Your task to perform on an android device: Open accessibility settings Image 0: 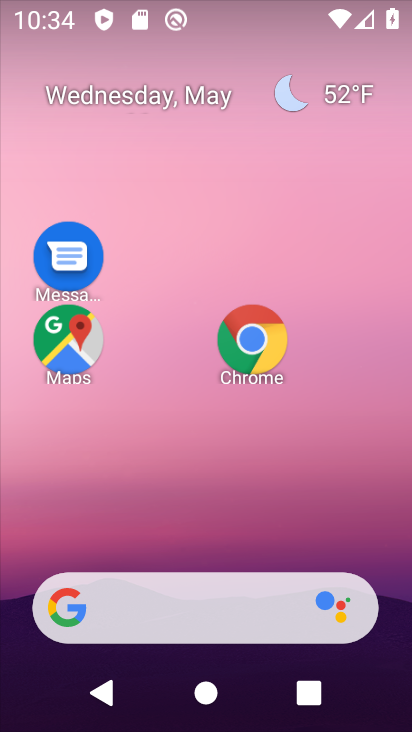
Step 0: drag from (191, 495) to (193, 14)
Your task to perform on an android device: Open accessibility settings Image 1: 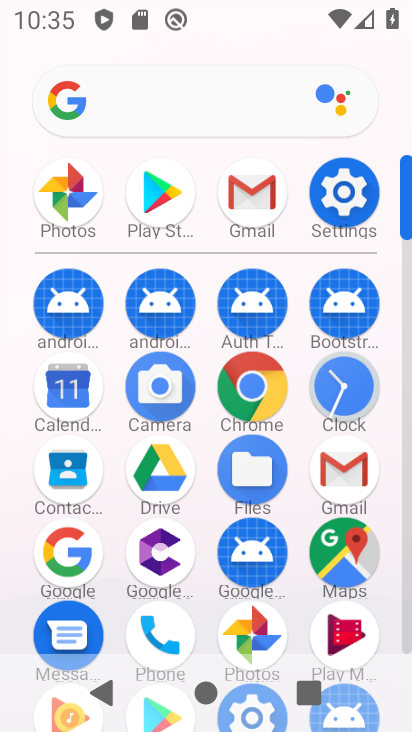
Step 1: click (345, 184)
Your task to perform on an android device: Open accessibility settings Image 2: 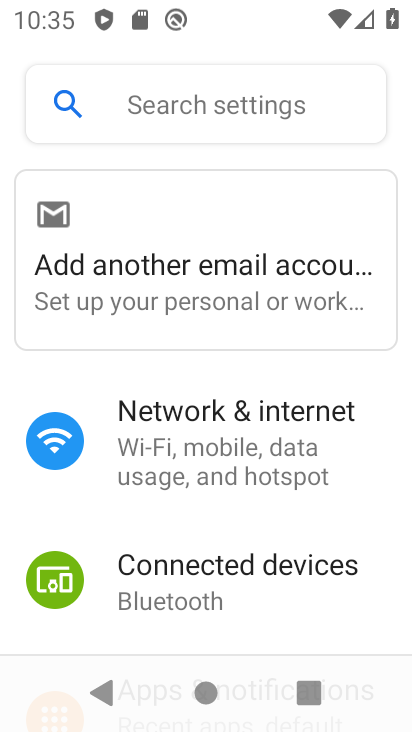
Step 2: drag from (281, 590) to (293, 7)
Your task to perform on an android device: Open accessibility settings Image 3: 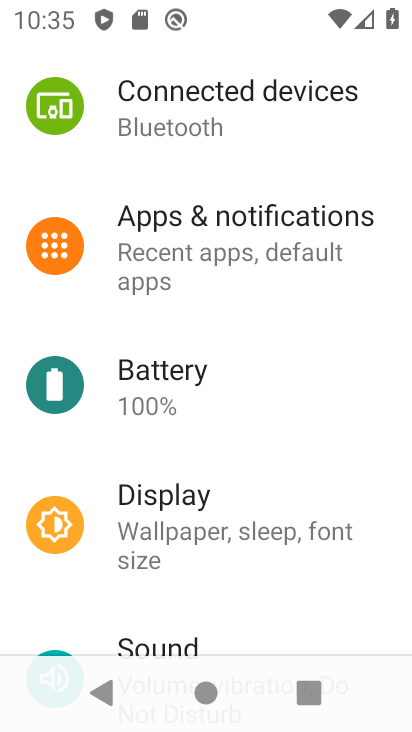
Step 3: drag from (273, 506) to (265, 23)
Your task to perform on an android device: Open accessibility settings Image 4: 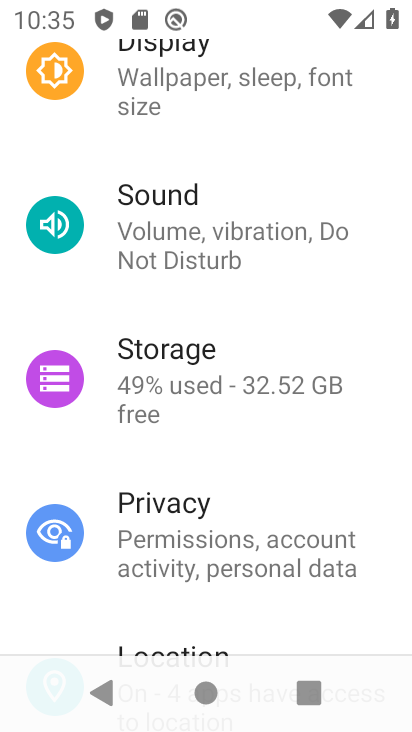
Step 4: drag from (255, 532) to (226, 27)
Your task to perform on an android device: Open accessibility settings Image 5: 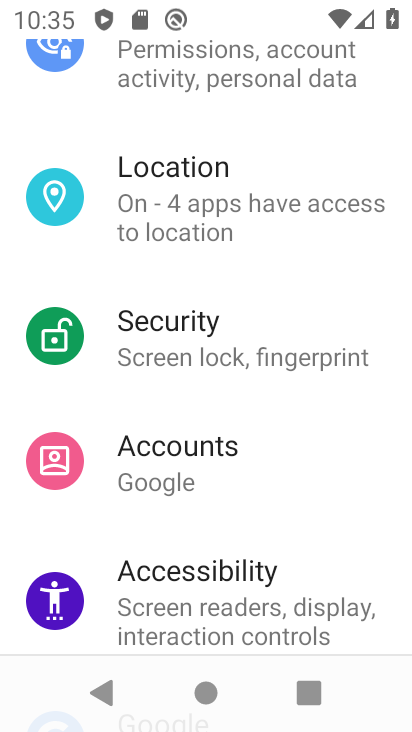
Step 5: drag from (241, 567) to (264, 300)
Your task to perform on an android device: Open accessibility settings Image 6: 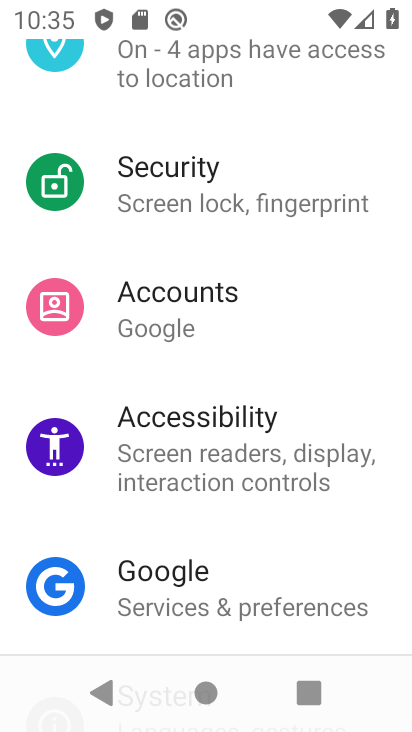
Step 6: click (233, 419)
Your task to perform on an android device: Open accessibility settings Image 7: 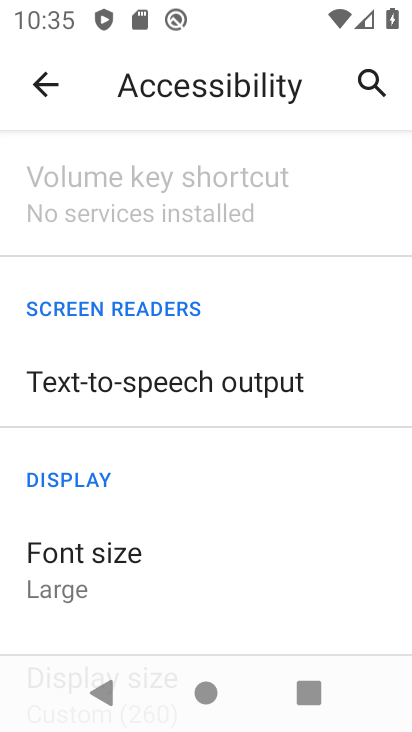
Step 7: task complete